Your task to perform on an android device: Go to wifi settings Image 0: 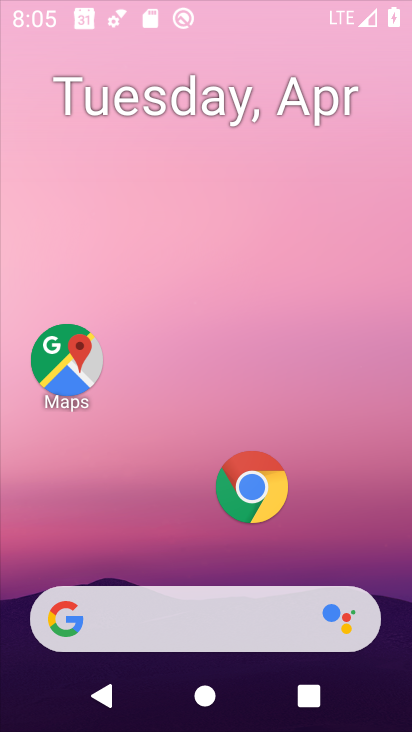
Step 0: click (316, 608)
Your task to perform on an android device: Go to wifi settings Image 1: 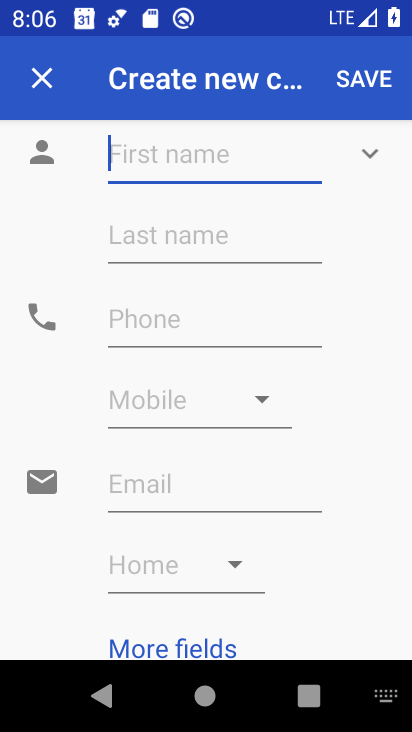
Step 1: type "ghhj"
Your task to perform on an android device: Go to wifi settings Image 2: 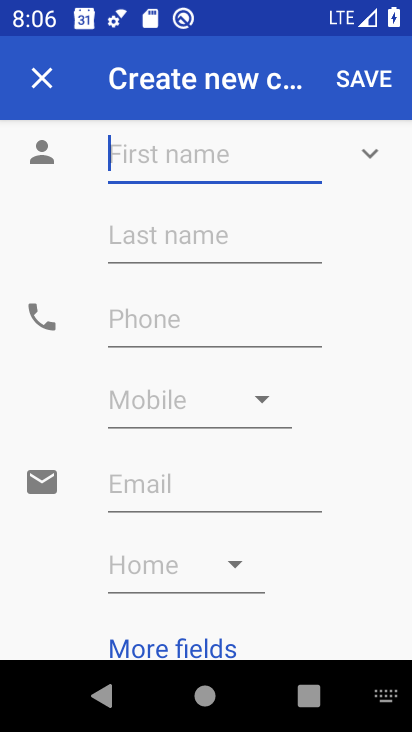
Step 2: click (185, 315)
Your task to perform on an android device: Go to wifi settings Image 3: 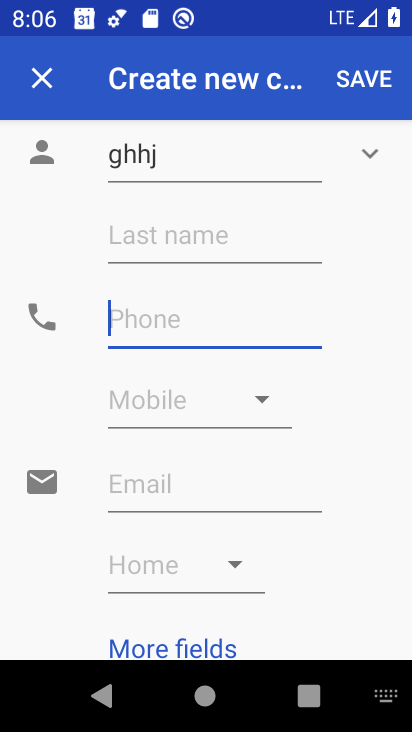
Step 3: type "8799"
Your task to perform on an android device: Go to wifi settings Image 4: 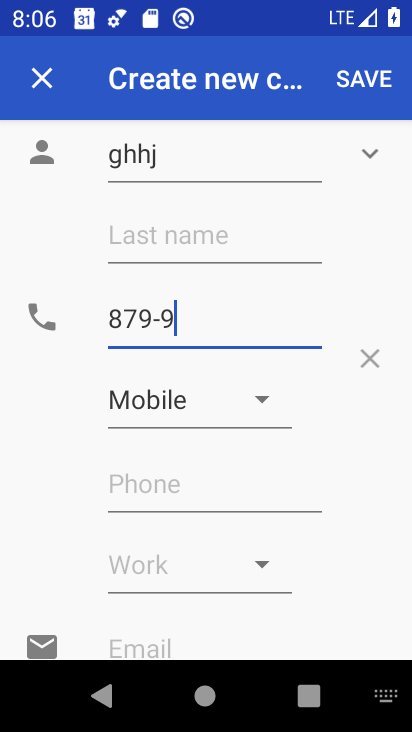
Step 4: click (383, 80)
Your task to perform on an android device: Go to wifi settings Image 5: 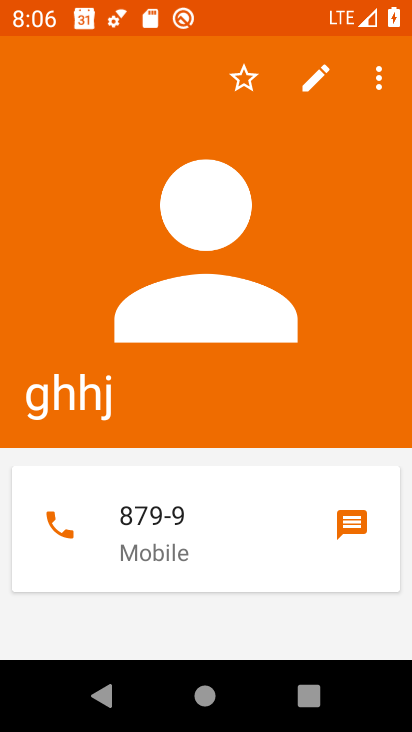
Step 5: task complete